Your task to perform on an android device: Open Youtube and go to "Your channel" Image 0: 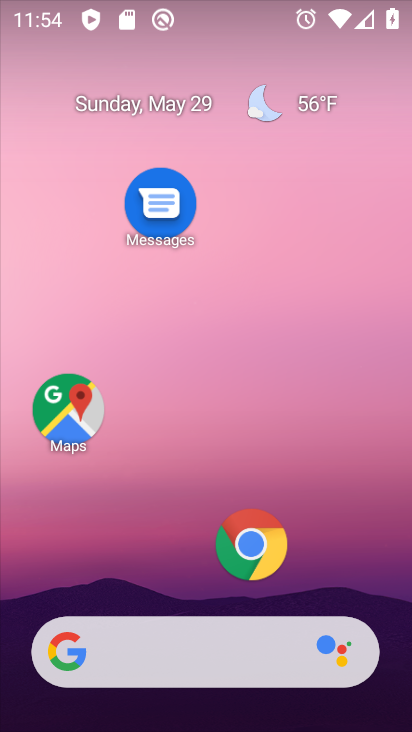
Step 0: press home button
Your task to perform on an android device: Open Youtube and go to "Your channel" Image 1: 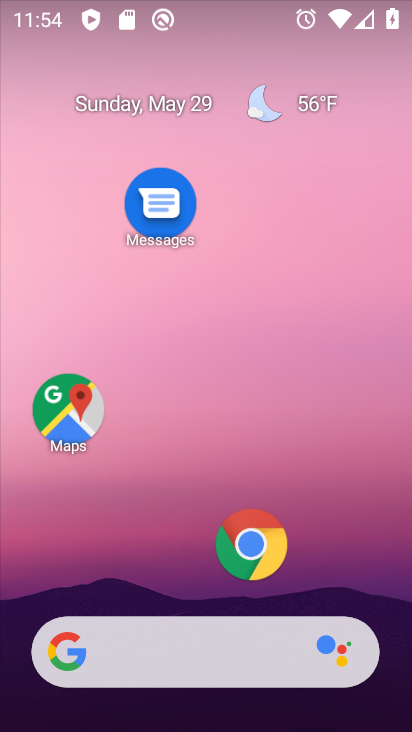
Step 1: drag from (205, 590) to (244, 21)
Your task to perform on an android device: Open Youtube and go to "Your channel" Image 2: 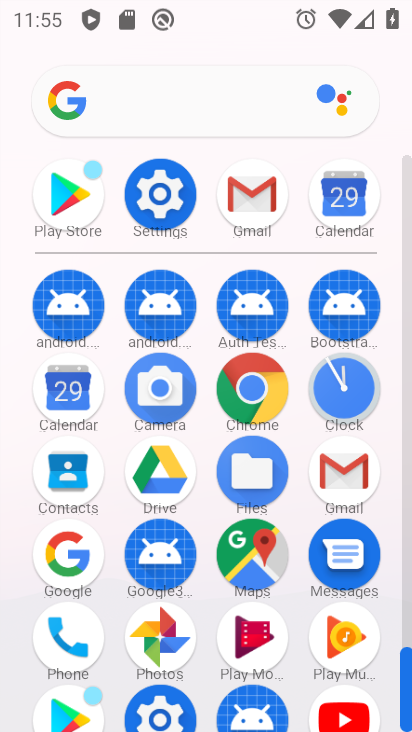
Step 2: click (344, 711)
Your task to perform on an android device: Open Youtube and go to "Your channel" Image 3: 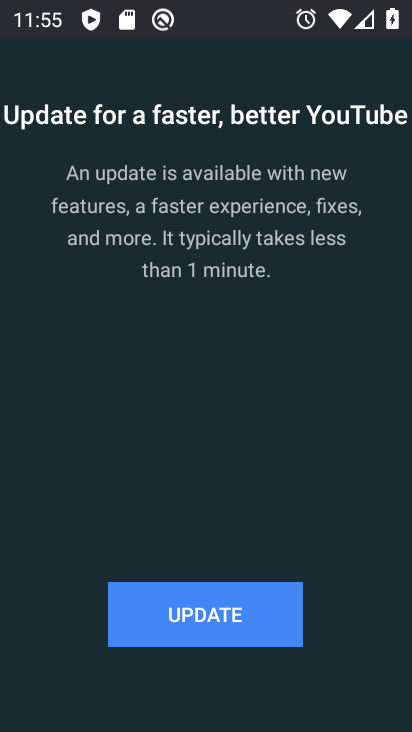
Step 3: click (225, 606)
Your task to perform on an android device: Open Youtube and go to "Your channel" Image 4: 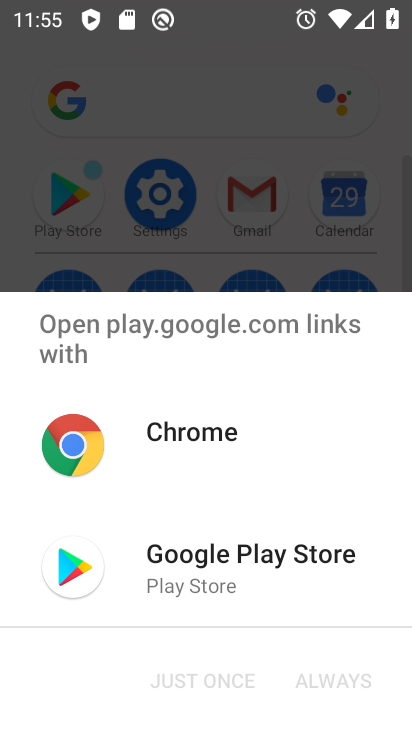
Step 4: click (168, 581)
Your task to perform on an android device: Open Youtube and go to "Your channel" Image 5: 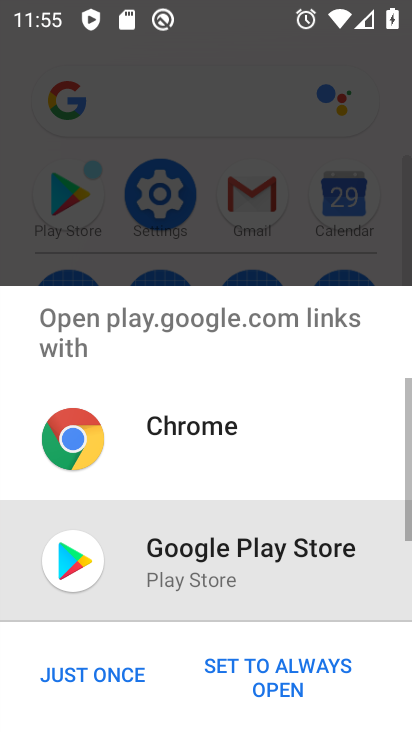
Step 5: click (97, 670)
Your task to perform on an android device: Open Youtube and go to "Your channel" Image 6: 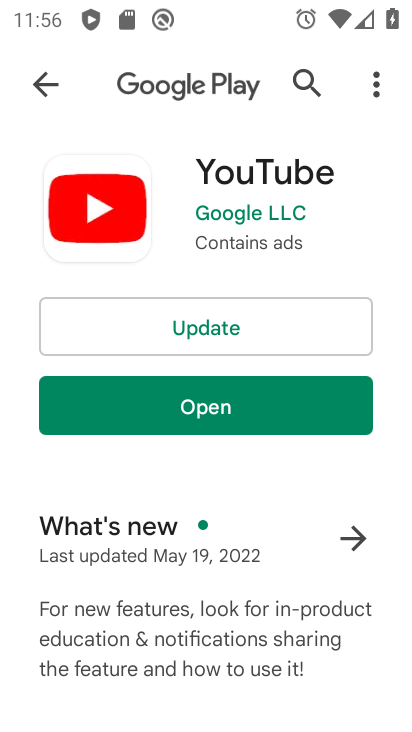
Step 6: click (196, 320)
Your task to perform on an android device: Open Youtube and go to "Your channel" Image 7: 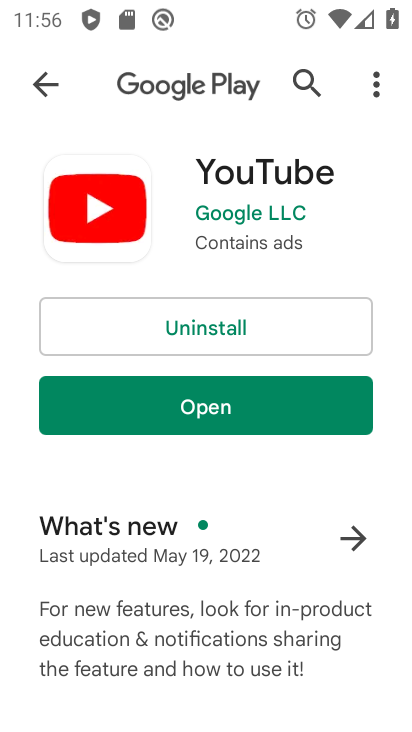
Step 7: click (219, 413)
Your task to perform on an android device: Open Youtube and go to "Your channel" Image 8: 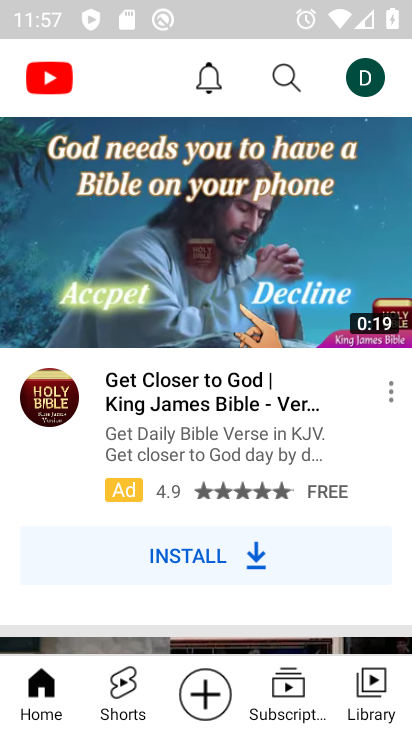
Step 8: click (372, 73)
Your task to perform on an android device: Open Youtube and go to "Your channel" Image 9: 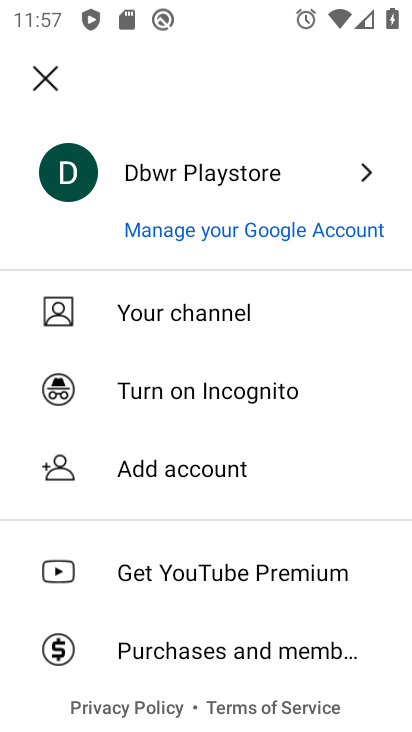
Step 9: click (192, 297)
Your task to perform on an android device: Open Youtube and go to "Your channel" Image 10: 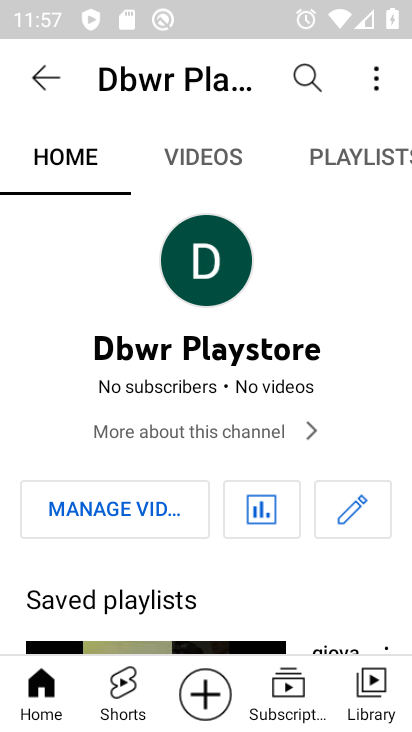
Step 10: task complete